Your task to perform on an android device: turn off notifications settings in the gmail app Image 0: 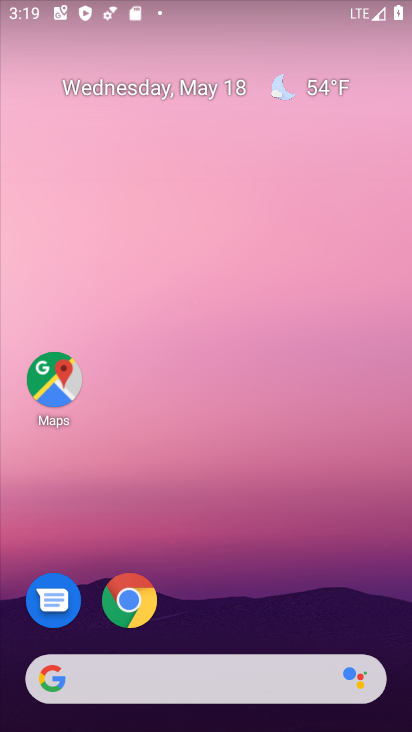
Step 0: press home button
Your task to perform on an android device: turn off notifications settings in the gmail app Image 1: 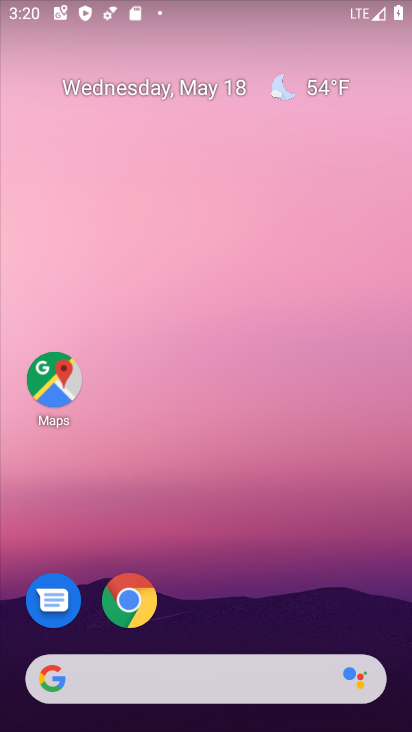
Step 1: drag from (116, 684) to (246, 193)
Your task to perform on an android device: turn off notifications settings in the gmail app Image 2: 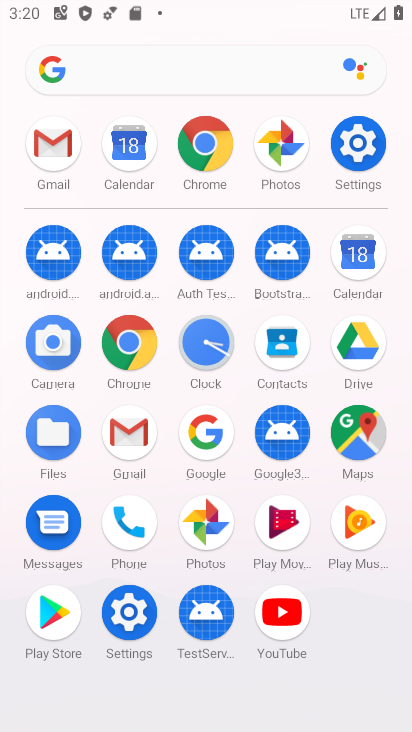
Step 2: click (58, 155)
Your task to perform on an android device: turn off notifications settings in the gmail app Image 3: 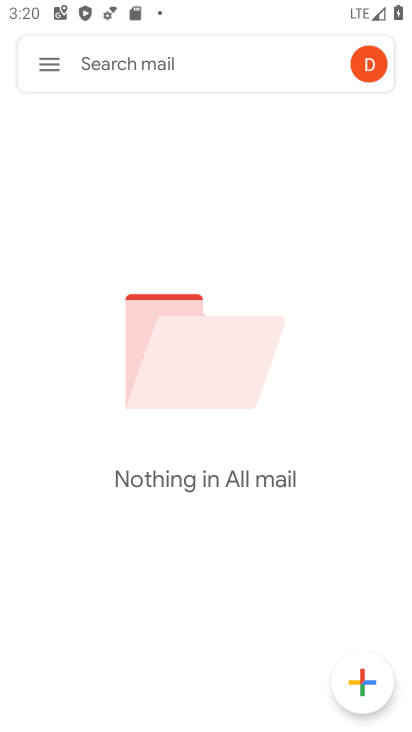
Step 3: click (49, 64)
Your task to perform on an android device: turn off notifications settings in the gmail app Image 4: 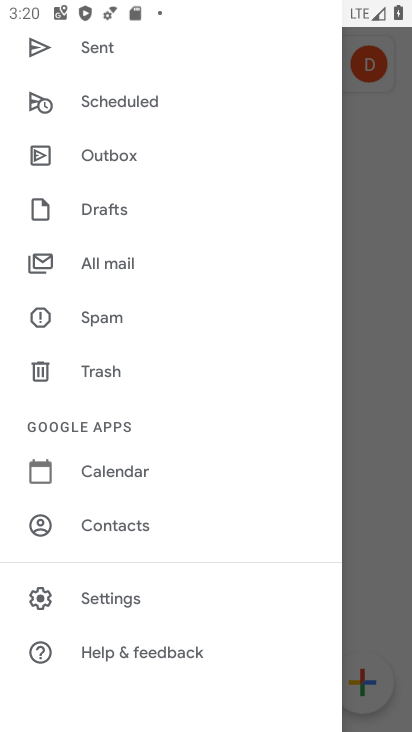
Step 4: click (124, 599)
Your task to perform on an android device: turn off notifications settings in the gmail app Image 5: 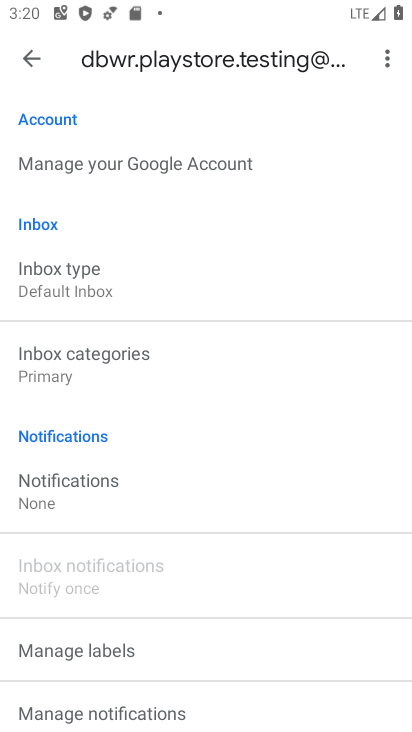
Step 5: click (87, 491)
Your task to perform on an android device: turn off notifications settings in the gmail app Image 6: 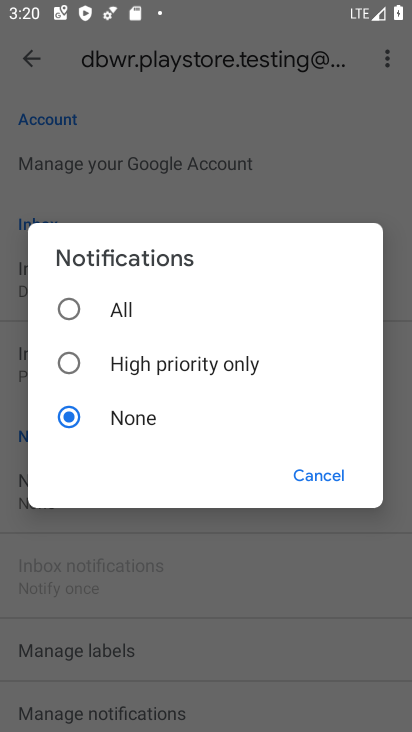
Step 6: task complete